Your task to perform on an android device: open app "Google Photos" (install if not already installed) Image 0: 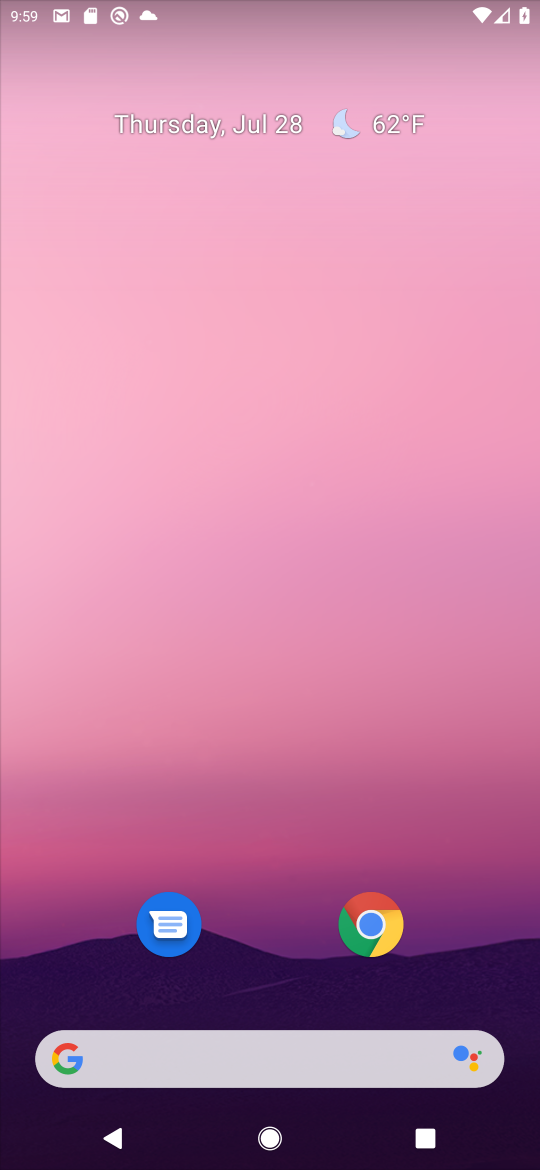
Step 0: drag from (244, 107) to (199, 2)
Your task to perform on an android device: open app "Google Photos" (install if not already installed) Image 1: 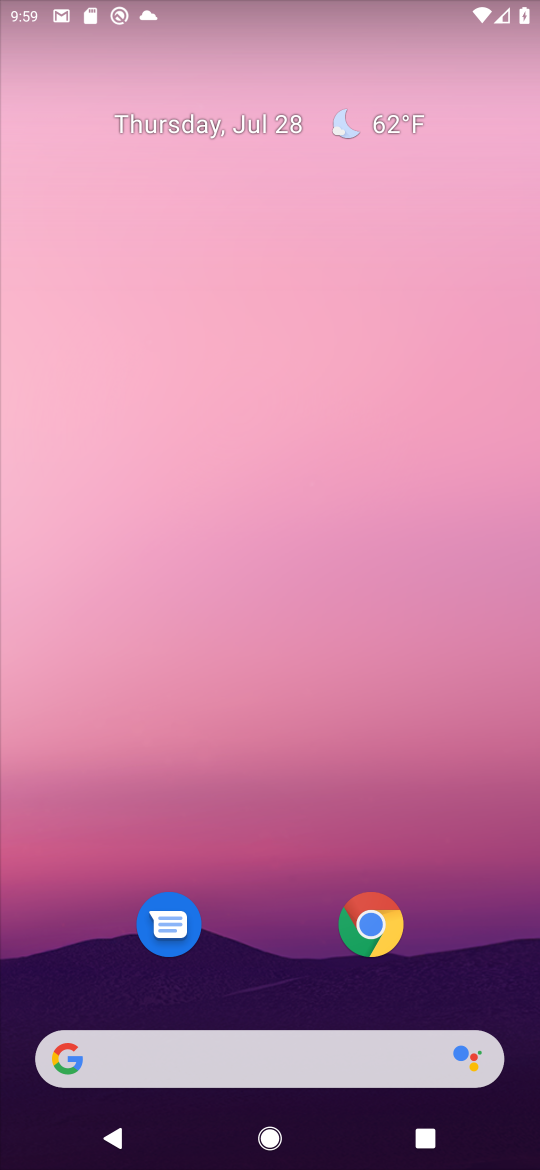
Step 1: drag from (237, 1057) to (234, 39)
Your task to perform on an android device: open app "Google Photos" (install if not already installed) Image 2: 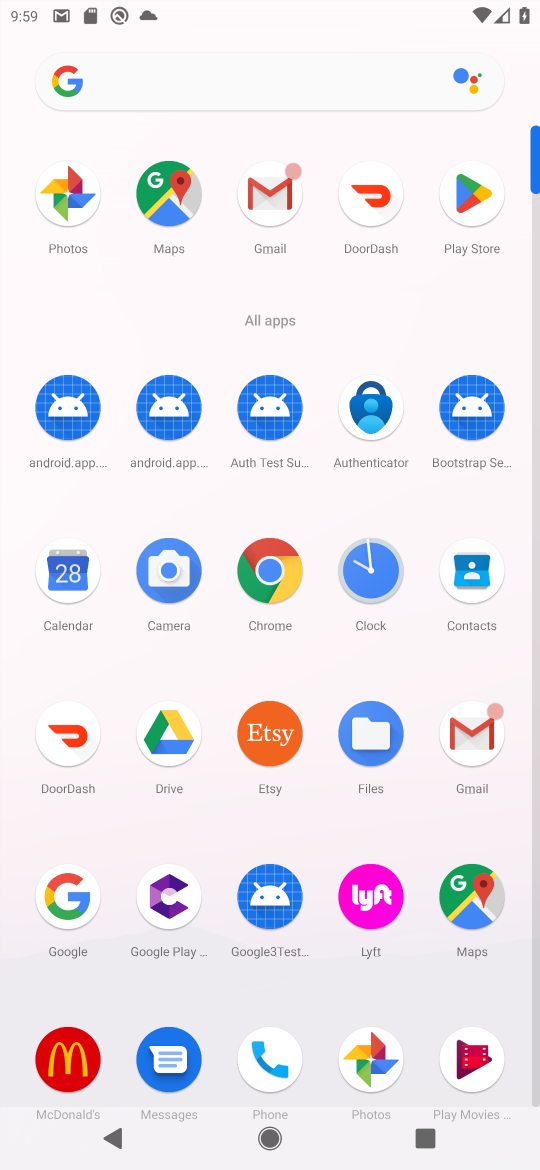
Step 2: click (459, 203)
Your task to perform on an android device: open app "Google Photos" (install if not already installed) Image 3: 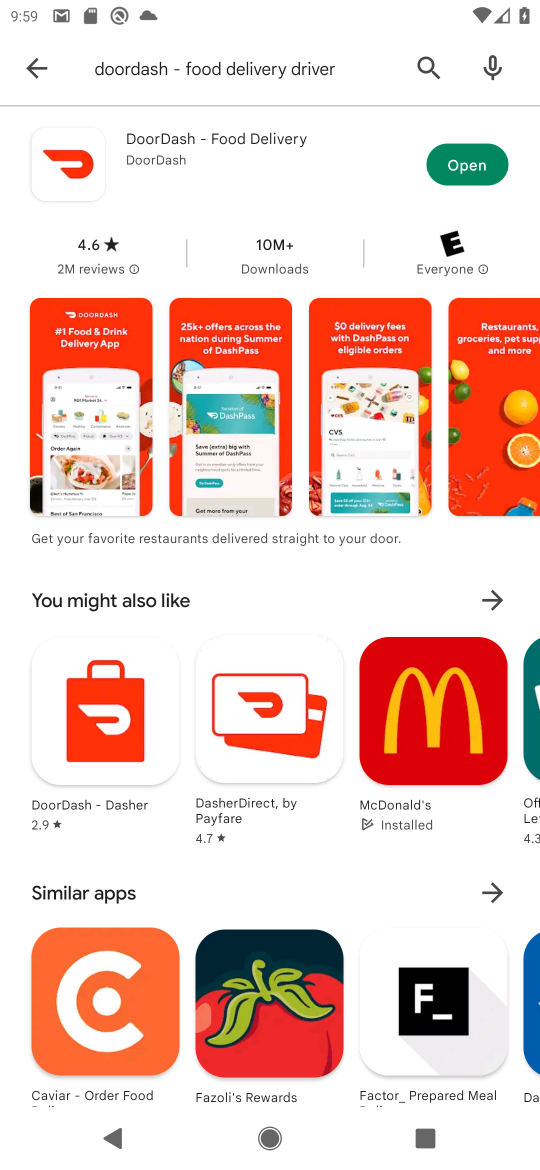
Step 3: click (424, 66)
Your task to perform on an android device: open app "Google Photos" (install if not already installed) Image 4: 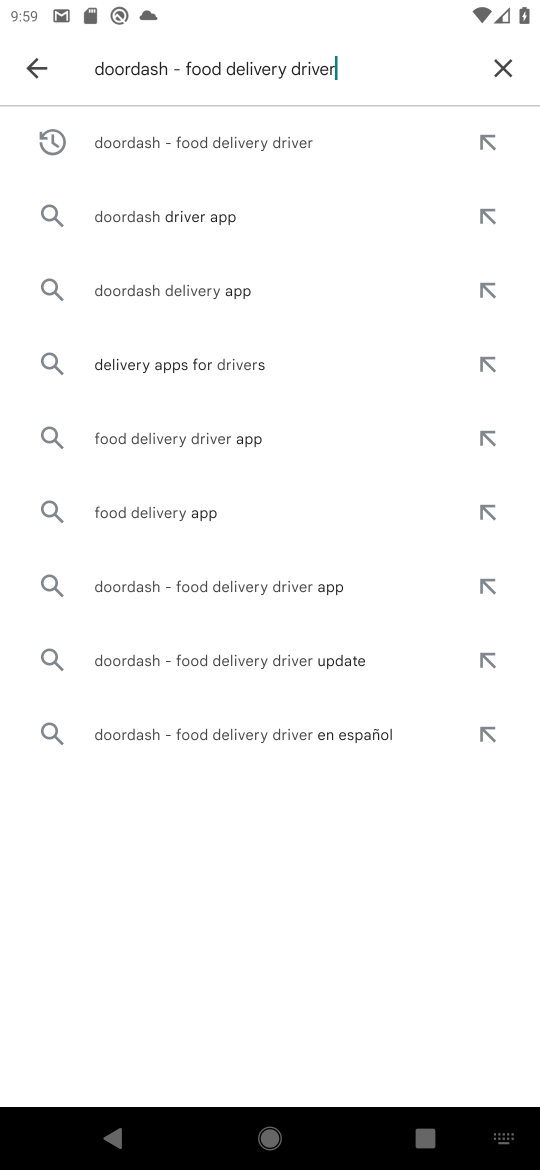
Step 4: click (501, 70)
Your task to perform on an android device: open app "Google Photos" (install if not already installed) Image 5: 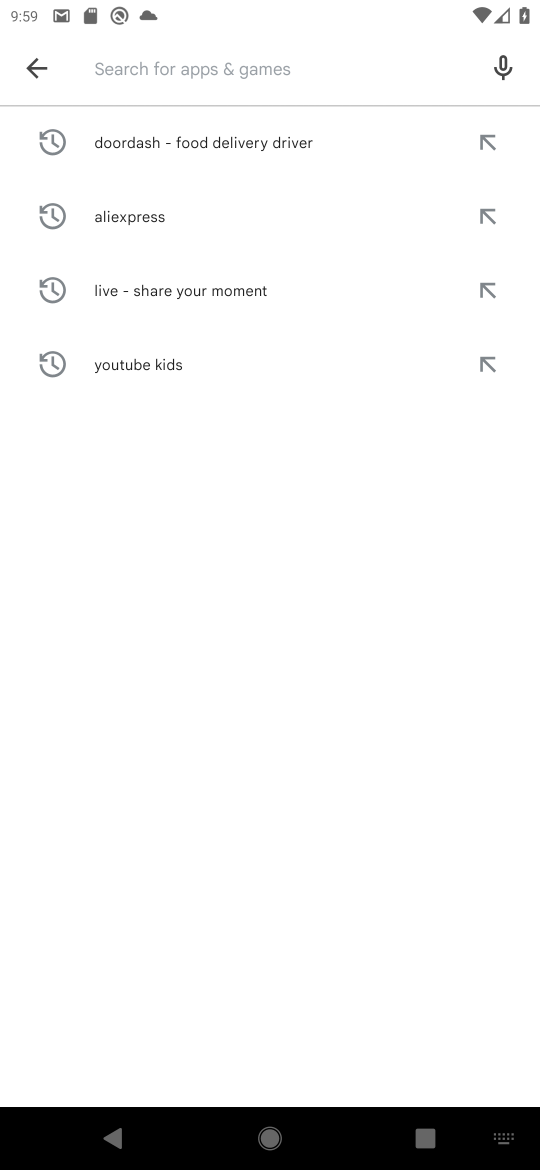
Step 5: type "Google Photos"
Your task to perform on an android device: open app "Google Photos" (install if not already installed) Image 6: 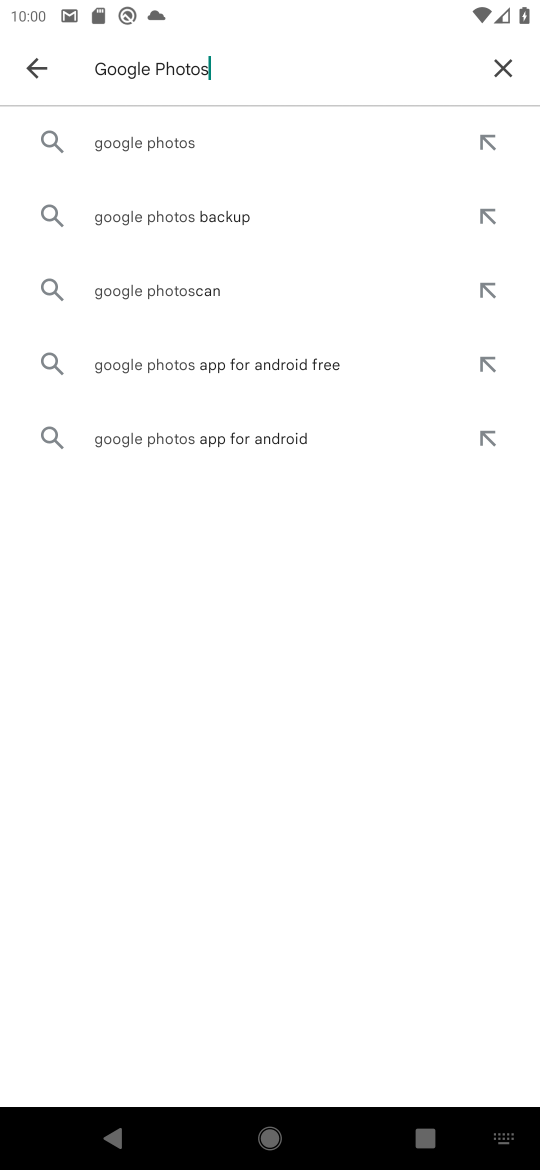
Step 6: click (200, 144)
Your task to perform on an android device: open app "Google Photos" (install if not already installed) Image 7: 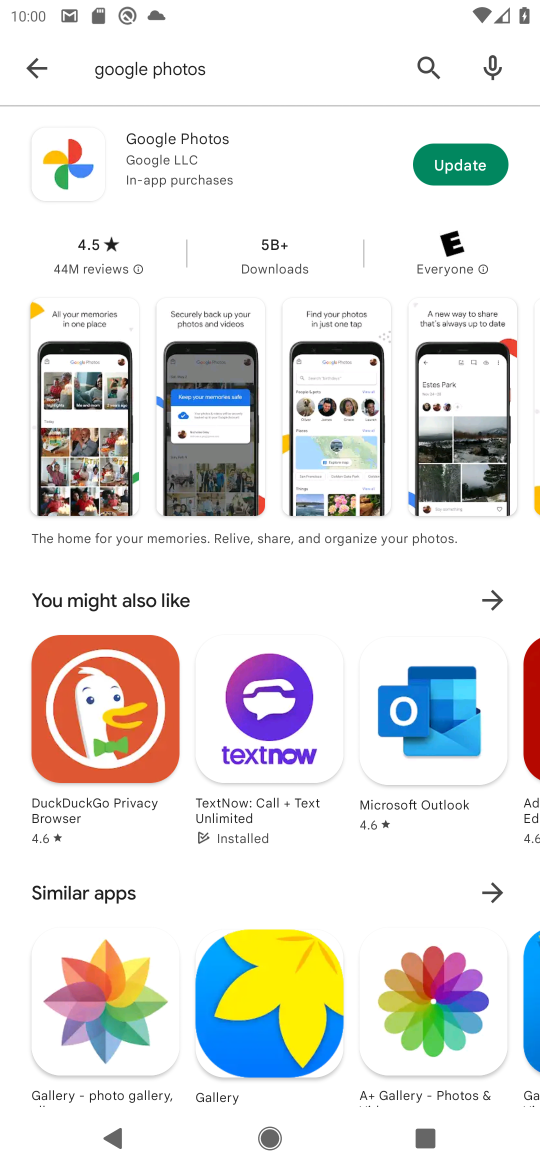
Step 7: click (180, 173)
Your task to perform on an android device: open app "Google Photos" (install if not already installed) Image 8: 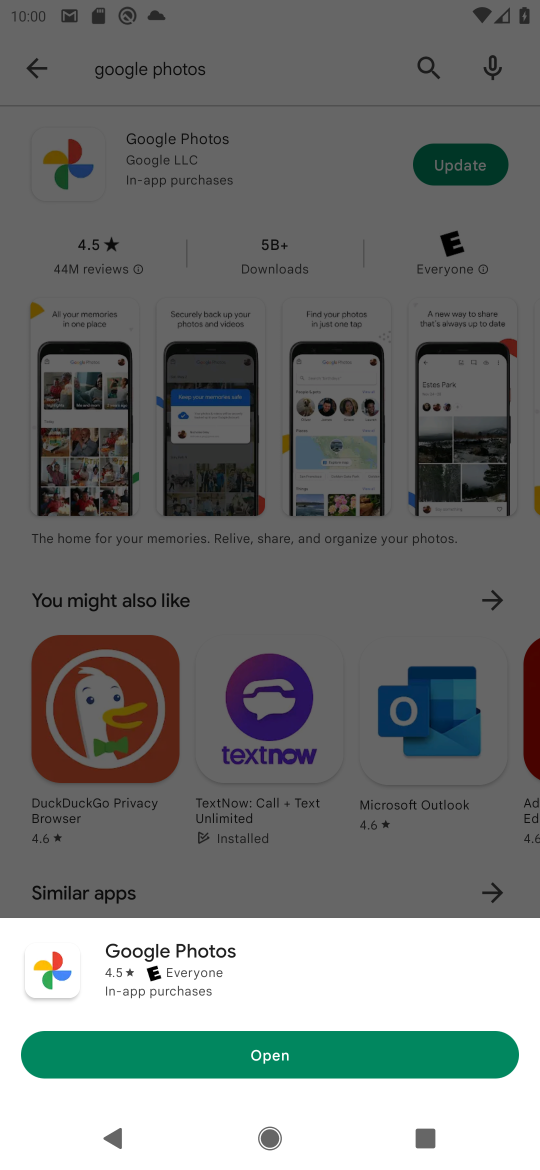
Step 8: click (305, 1076)
Your task to perform on an android device: open app "Google Photos" (install if not already installed) Image 9: 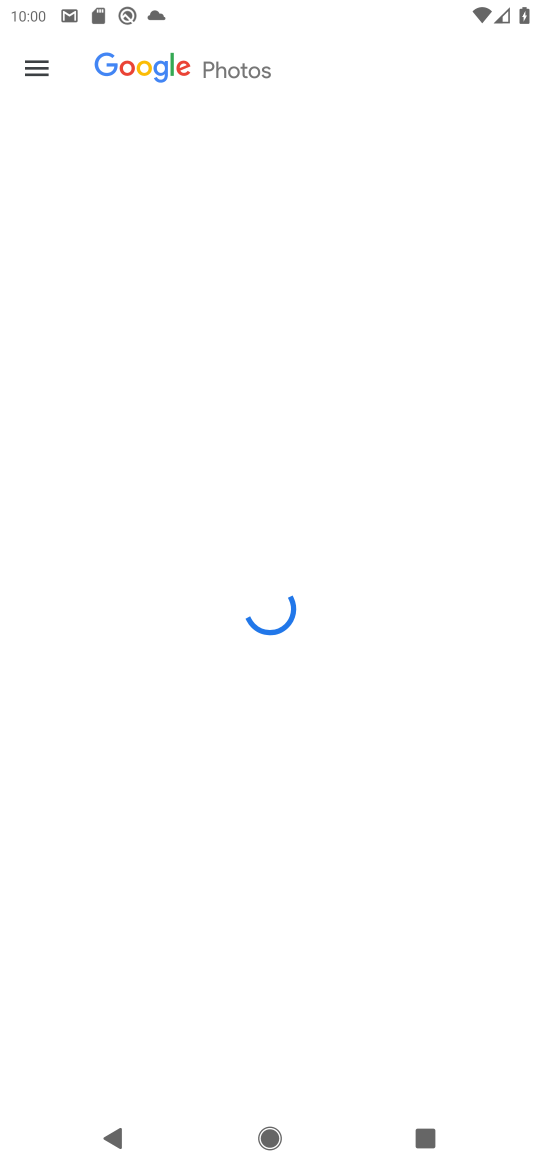
Step 9: task complete